Your task to perform on an android device: Go to Wikipedia Image 0: 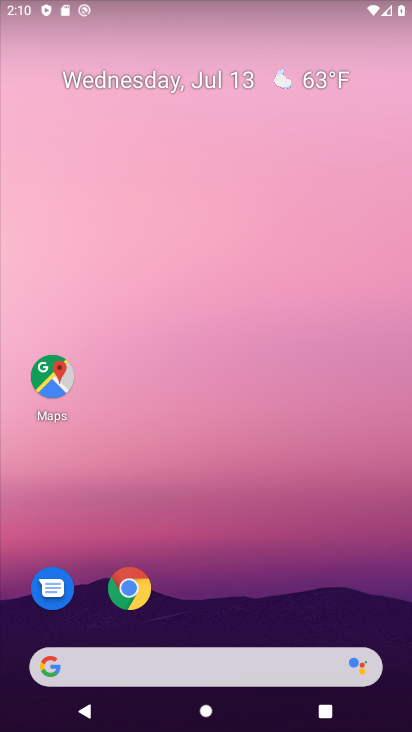
Step 0: click (136, 592)
Your task to perform on an android device: Go to Wikipedia Image 1: 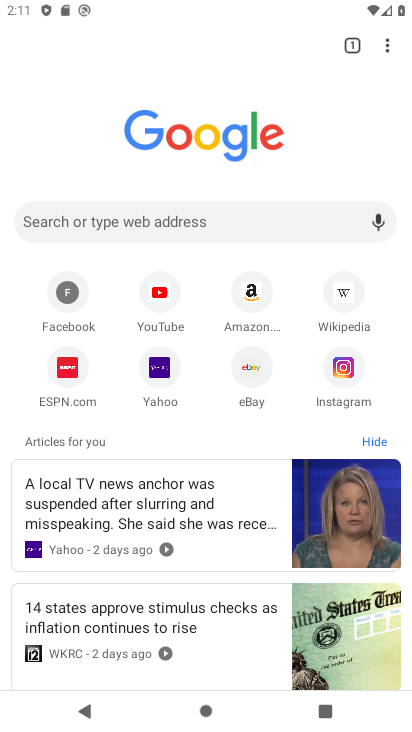
Step 1: click (335, 295)
Your task to perform on an android device: Go to Wikipedia Image 2: 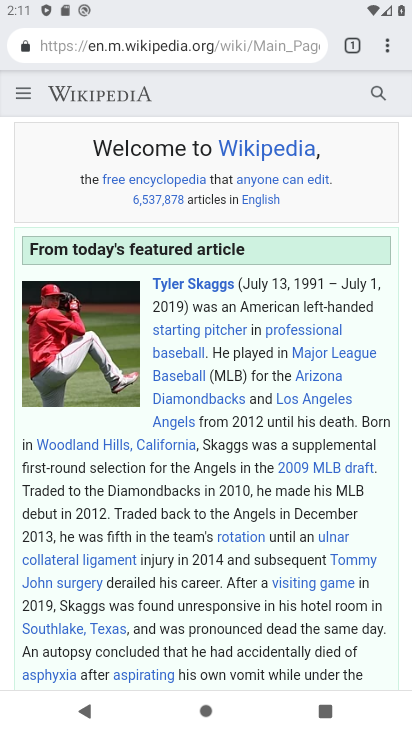
Step 2: task complete